Your task to perform on an android device: check google app version Image 0: 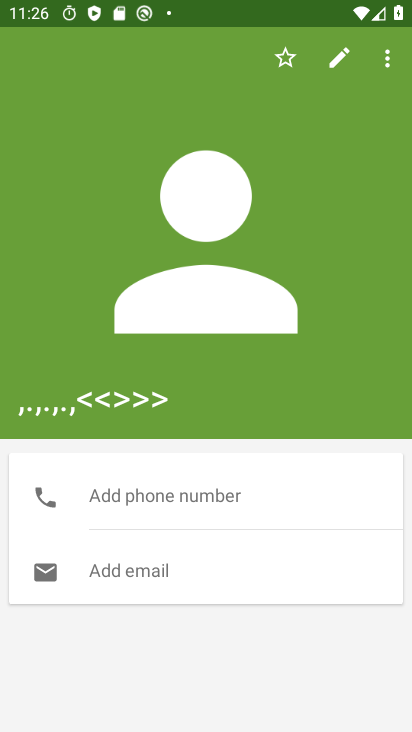
Step 0: click (156, 133)
Your task to perform on an android device: check google app version Image 1: 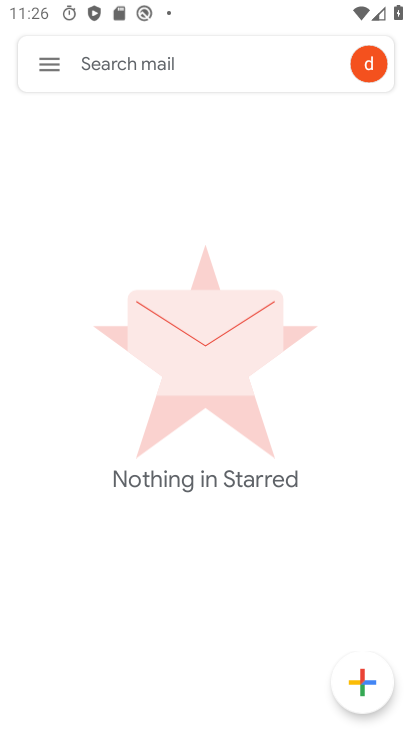
Step 1: press back button
Your task to perform on an android device: check google app version Image 2: 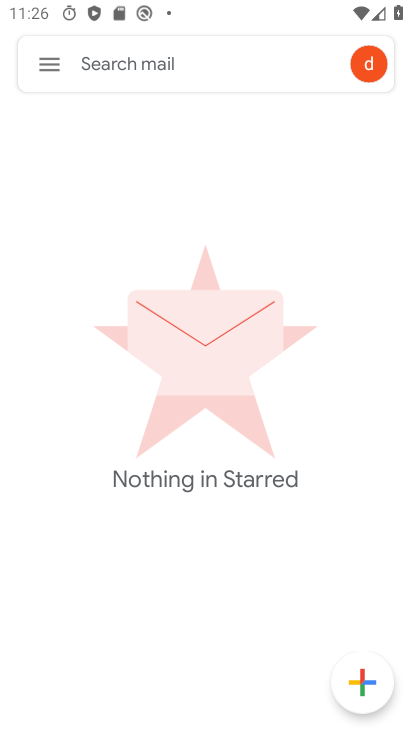
Step 2: press back button
Your task to perform on an android device: check google app version Image 3: 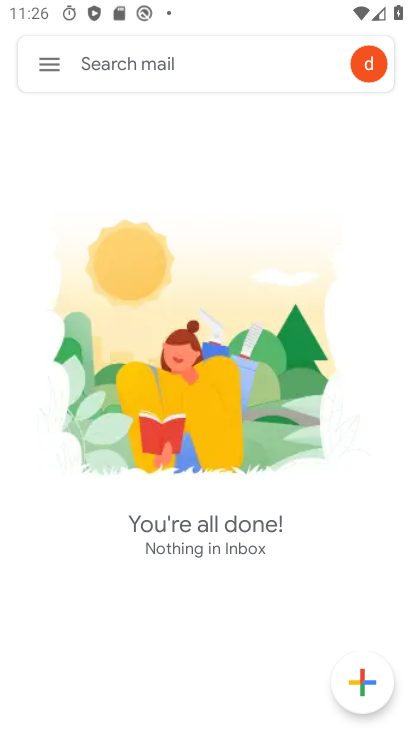
Step 3: press back button
Your task to perform on an android device: check google app version Image 4: 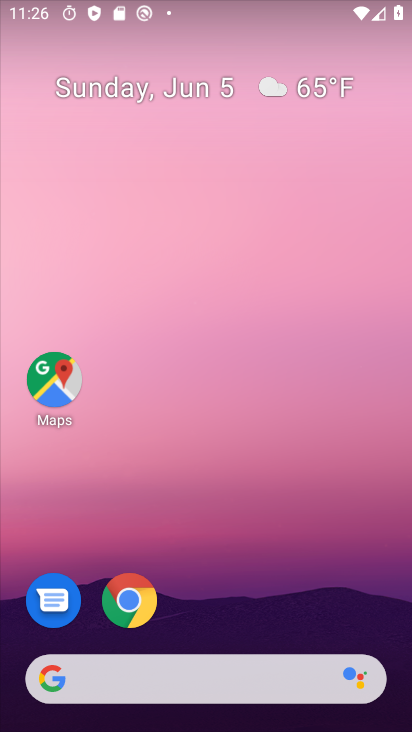
Step 4: press home button
Your task to perform on an android device: check google app version Image 5: 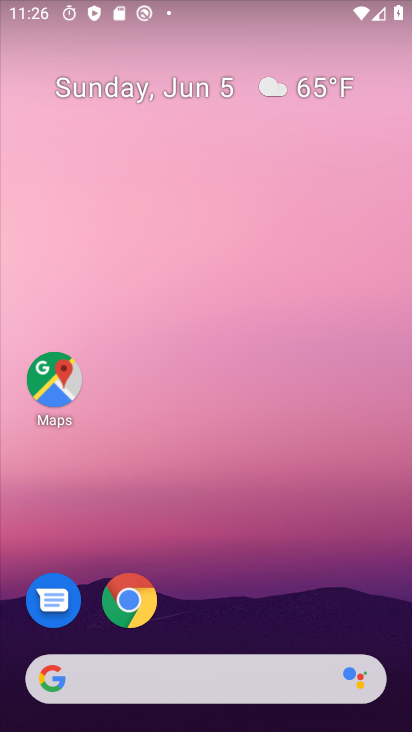
Step 5: drag from (265, 701) to (177, 206)
Your task to perform on an android device: check google app version Image 6: 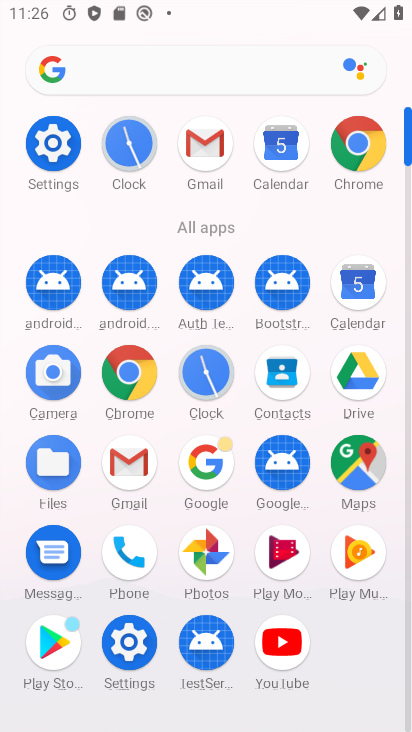
Step 6: click (127, 378)
Your task to perform on an android device: check google app version Image 7: 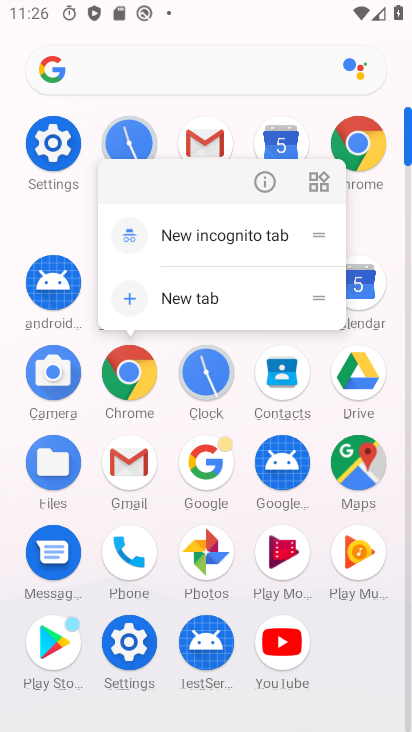
Step 7: click (216, 478)
Your task to perform on an android device: check google app version Image 8: 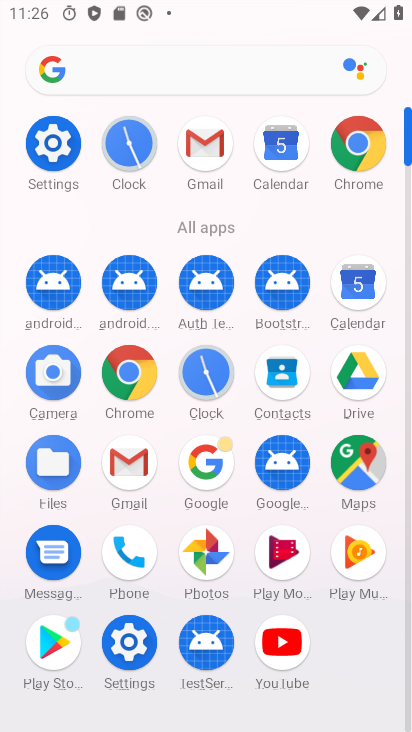
Step 8: click (216, 478)
Your task to perform on an android device: check google app version Image 9: 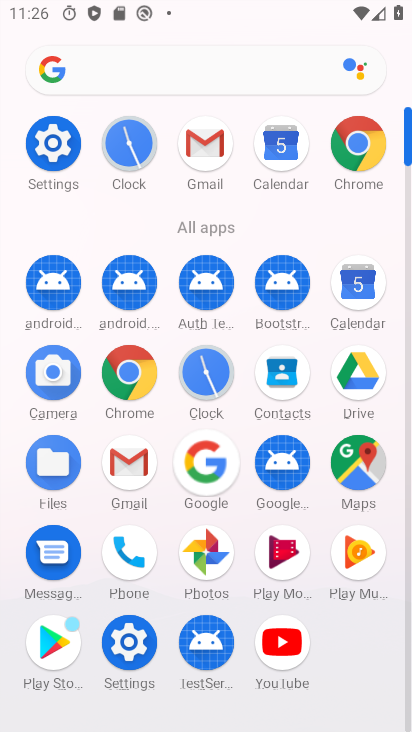
Step 9: click (216, 478)
Your task to perform on an android device: check google app version Image 10: 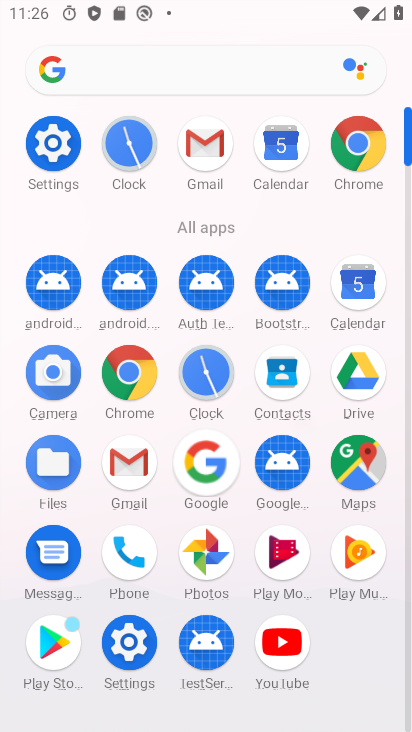
Step 10: click (207, 475)
Your task to perform on an android device: check google app version Image 11: 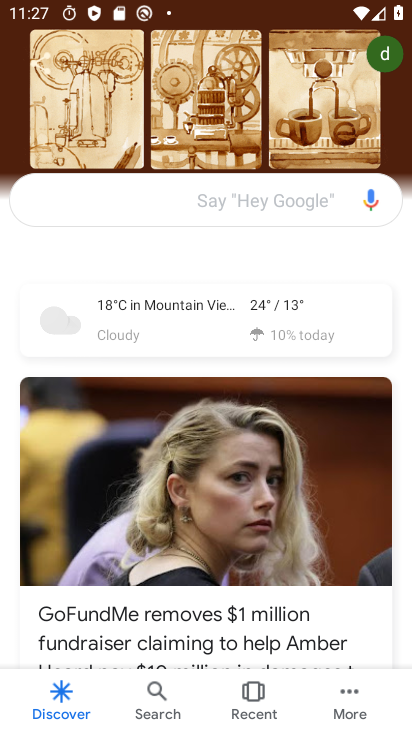
Step 11: click (344, 695)
Your task to perform on an android device: check google app version Image 12: 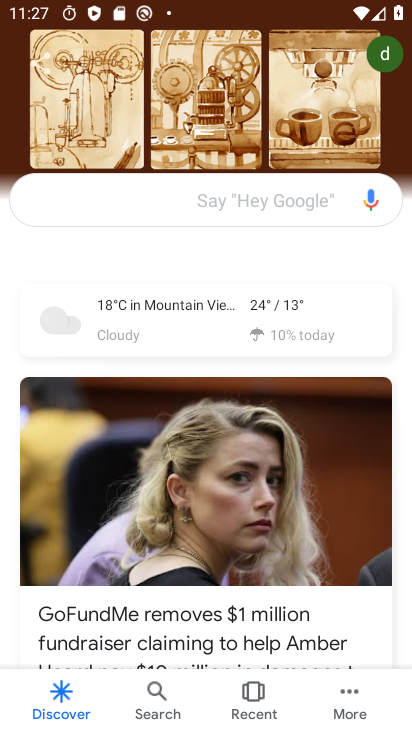
Step 12: click (346, 693)
Your task to perform on an android device: check google app version Image 13: 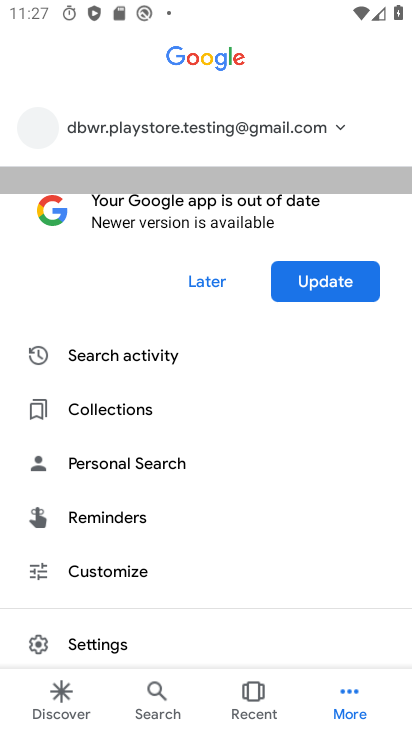
Step 13: click (353, 677)
Your task to perform on an android device: check google app version Image 14: 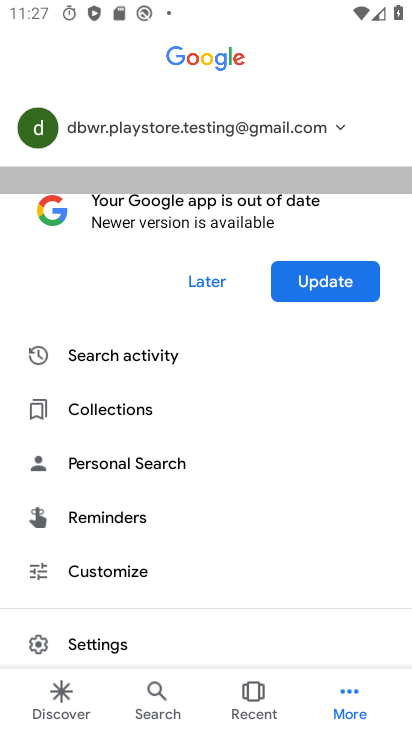
Step 14: drag from (179, 539) to (185, 128)
Your task to perform on an android device: check google app version Image 15: 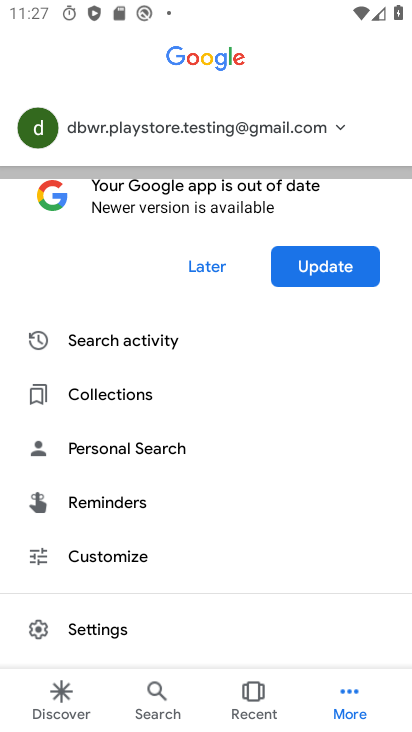
Step 15: click (95, 629)
Your task to perform on an android device: check google app version Image 16: 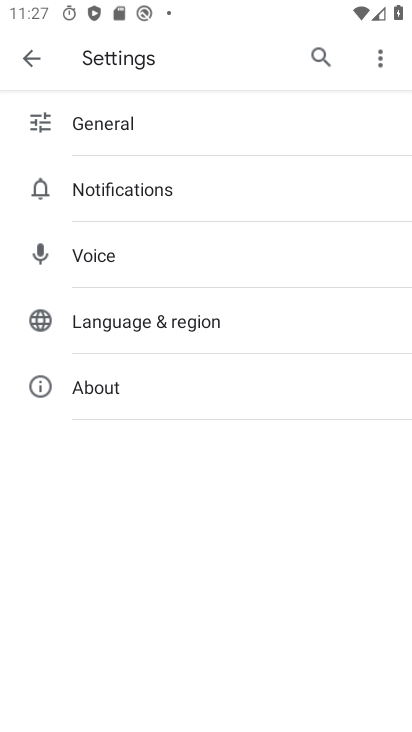
Step 16: click (94, 389)
Your task to perform on an android device: check google app version Image 17: 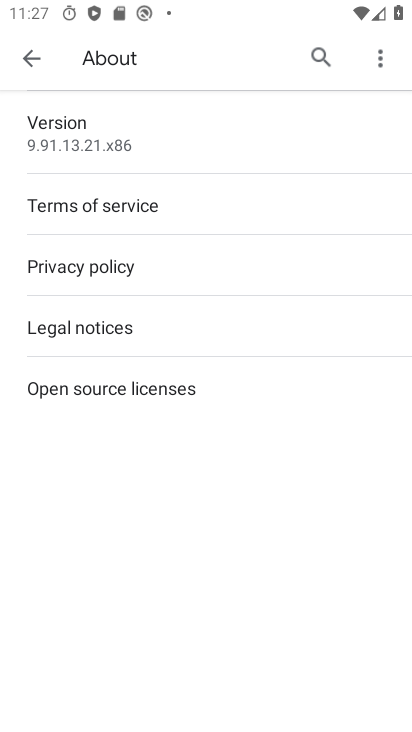
Step 17: click (34, 115)
Your task to perform on an android device: check google app version Image 18: 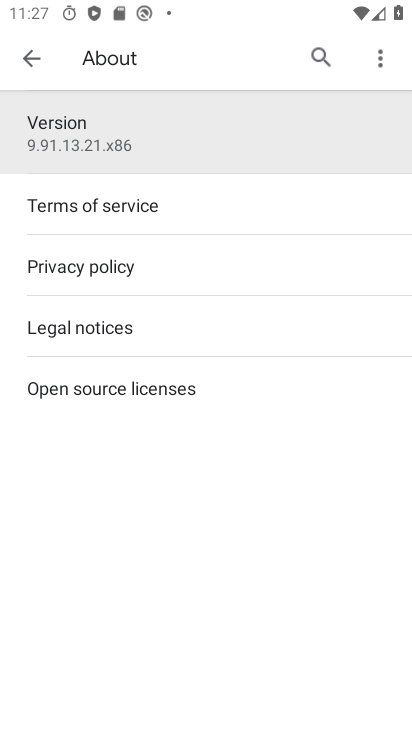
Step 18: click (45, 144)
Your task to perform on an android device: check google app version Image 19: 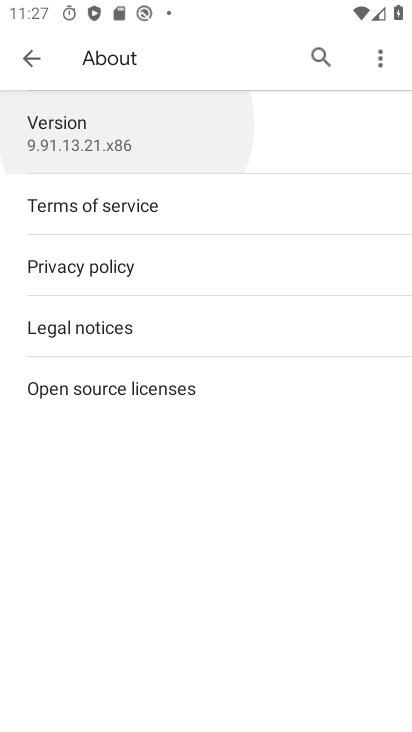
Step 19: click (46, 144)
Your task to perform on an android device: check google app version Image 20: 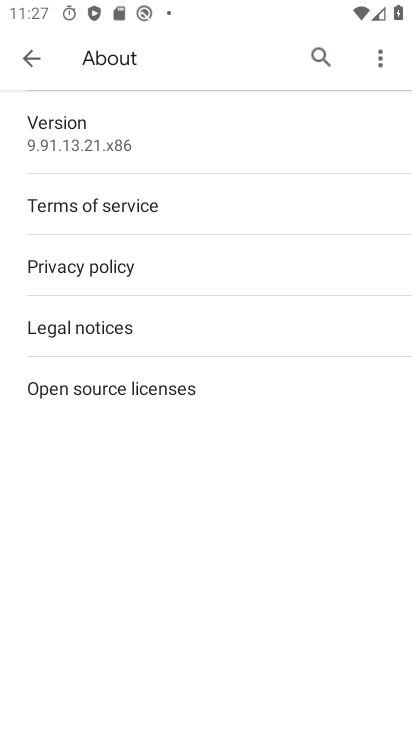
Step 20: task complete